Your task to perform on an android device: add a contact Image 0: 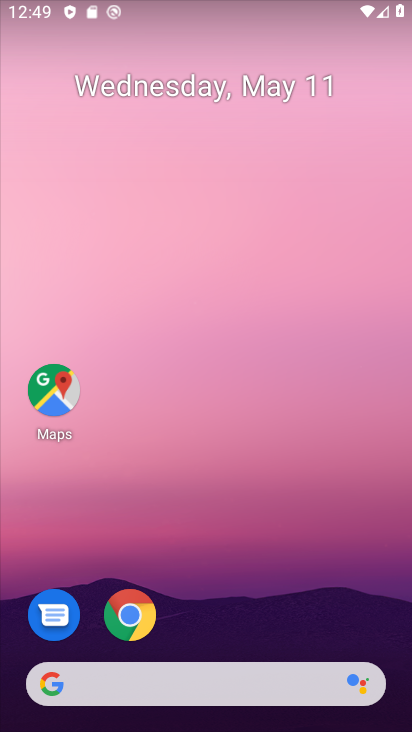
Step 0: drag from (304, 556) to (326, 63)
Your task to perform on an android device: add a contact Image 1: 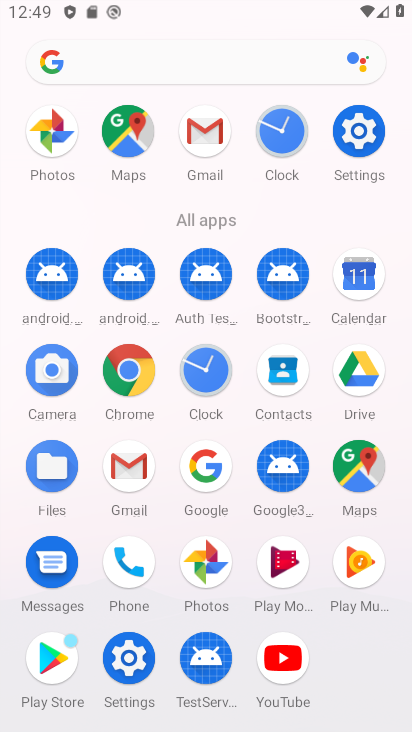
Step 1: click (274, 358)
Your task to perform on an android device: add a contact Image 2: 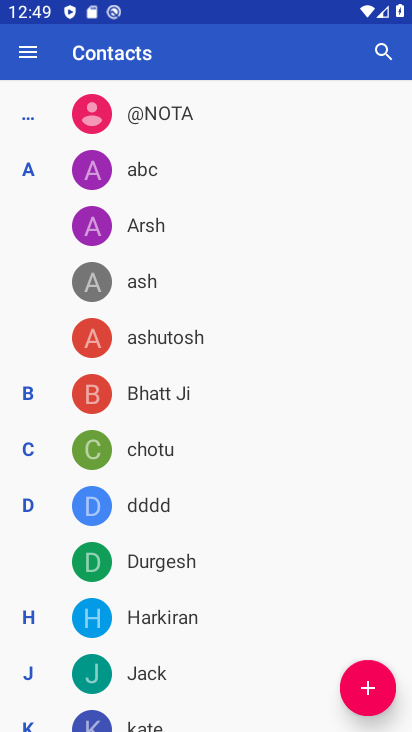
Step 2: click (368, 679)
Your task to perform on an android device: add a contact Image 3: 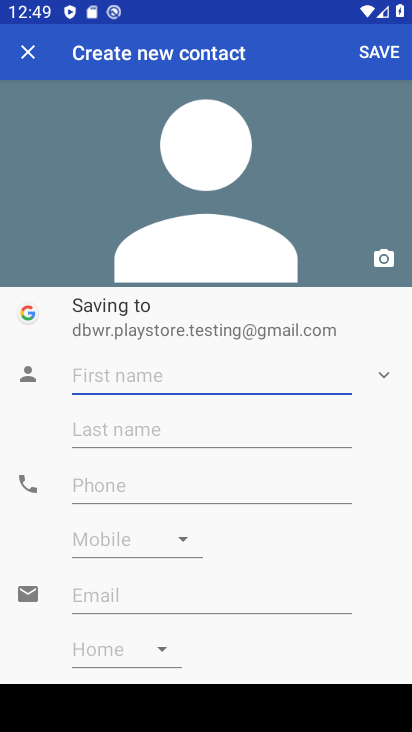
Step 3: type "bjhuikomkio"
Your task to perform on an android device: add a contact Image 4: 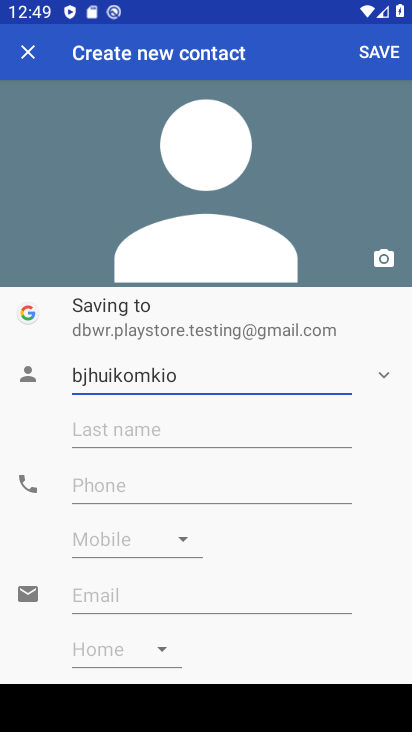
Step 4: click (97, 495)
Your task to perform on an android device: add a contact Image 5: 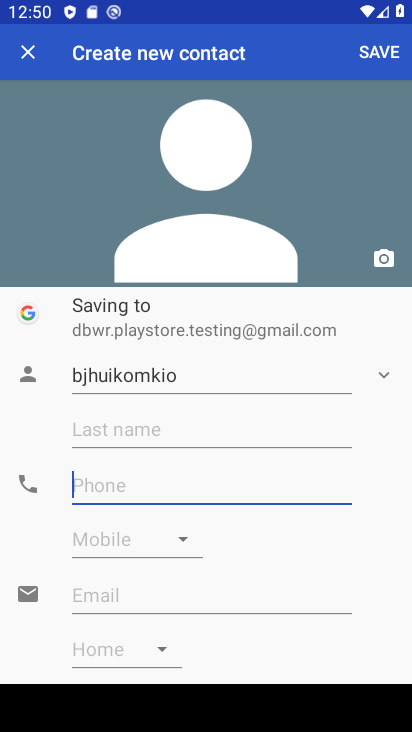
Step 5: type "6796798888"
Your task to perform on an android device: add a contact Image 6: 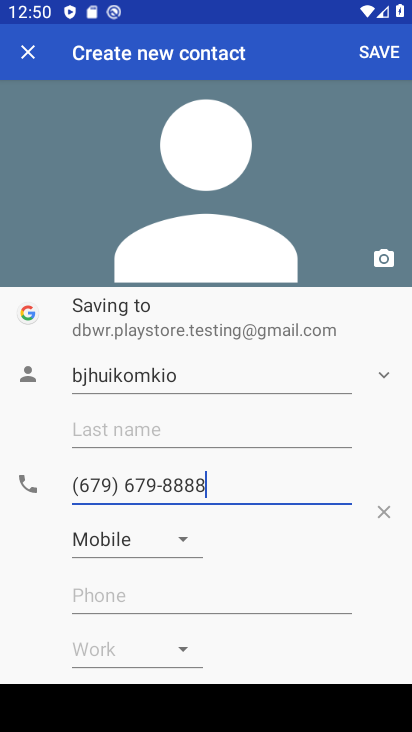
Step 6: task complete